Your task to perform on an android device: turn on location history Image 0: 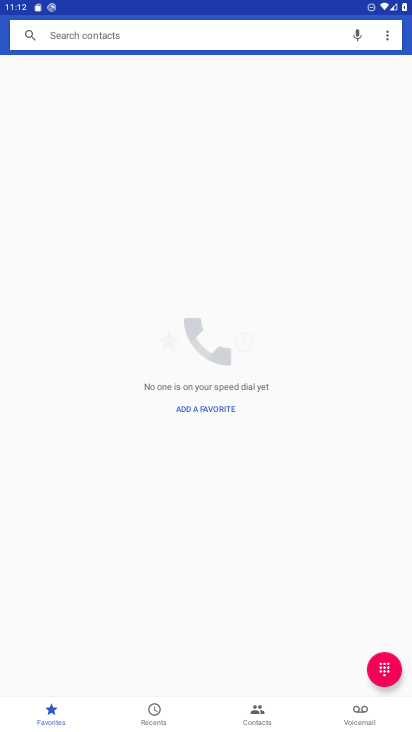
Step 0: press home button
Your task to perform on an android device: turn on location history Image 1: 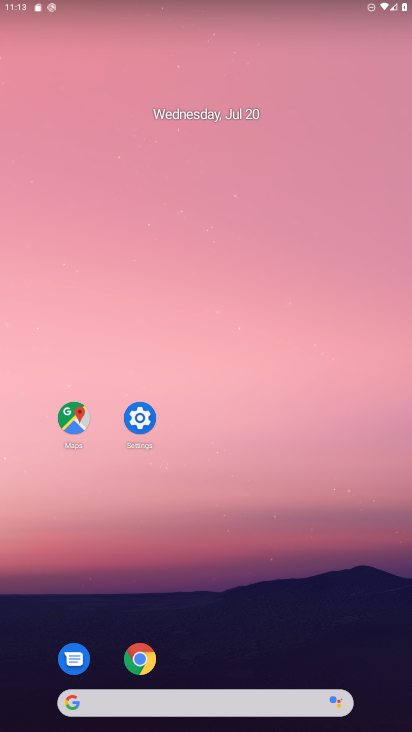
Step 1: click (142, 408)
Your task to perform on an android device: turn on location history Image 2: 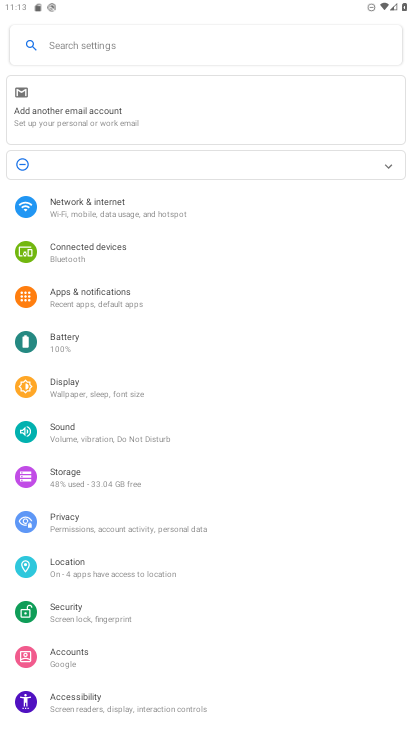
Step 2: click (75, 560)
Your task to perform on an android device: turn on location history Image 3: 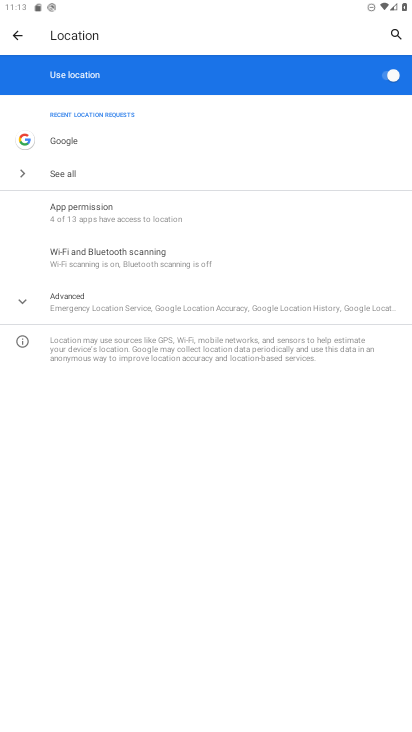
Step 3: click (17, 301)
Your task to perform on an android device: turn on location history Image 4: 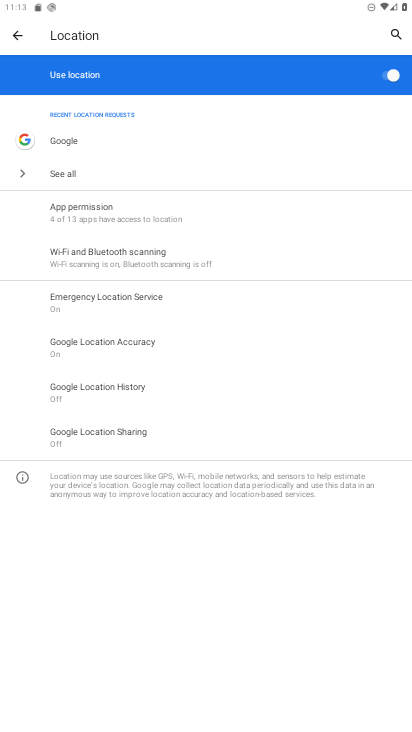
Step 4: task complete